Your task to perform on an android device: Open display settings Image 0: 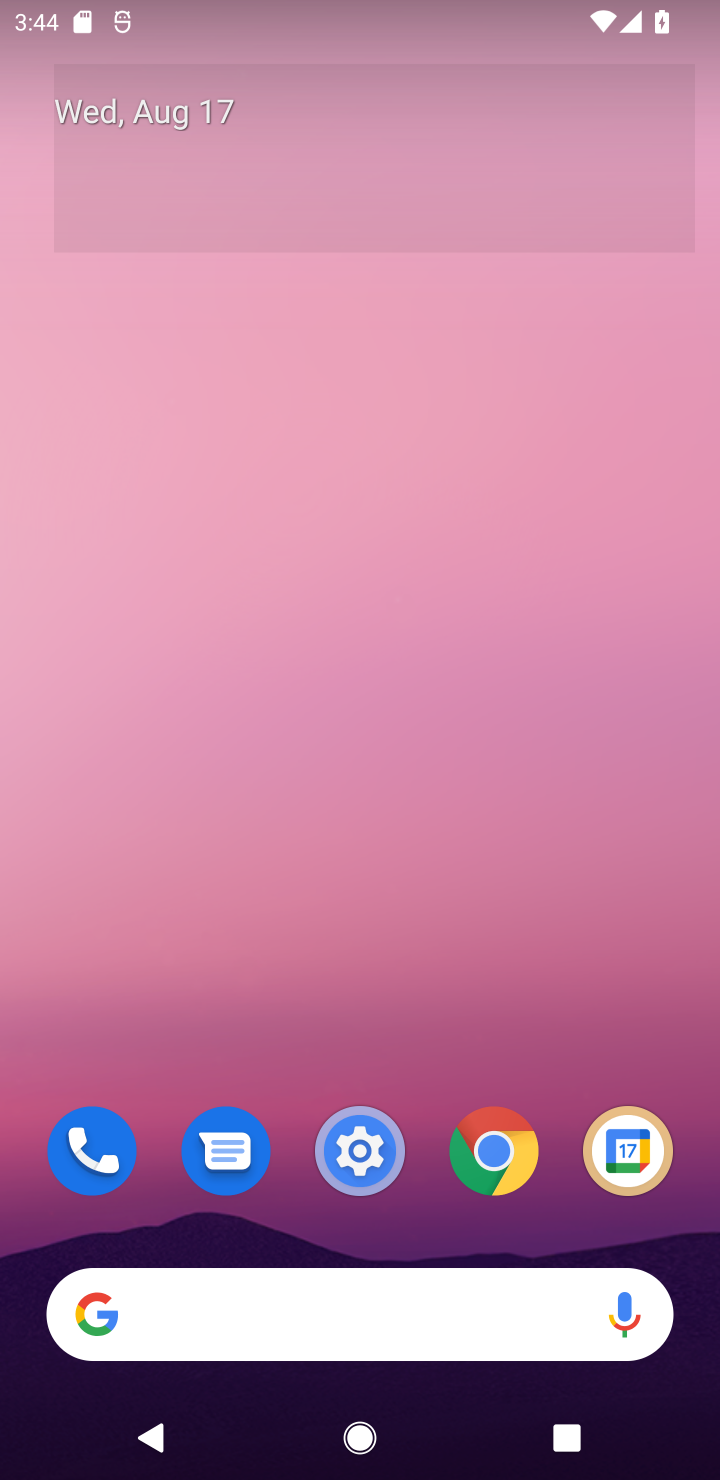
Step 0: click (354, 1188)
Your task to perform on an android device: Open display settings Image 1: 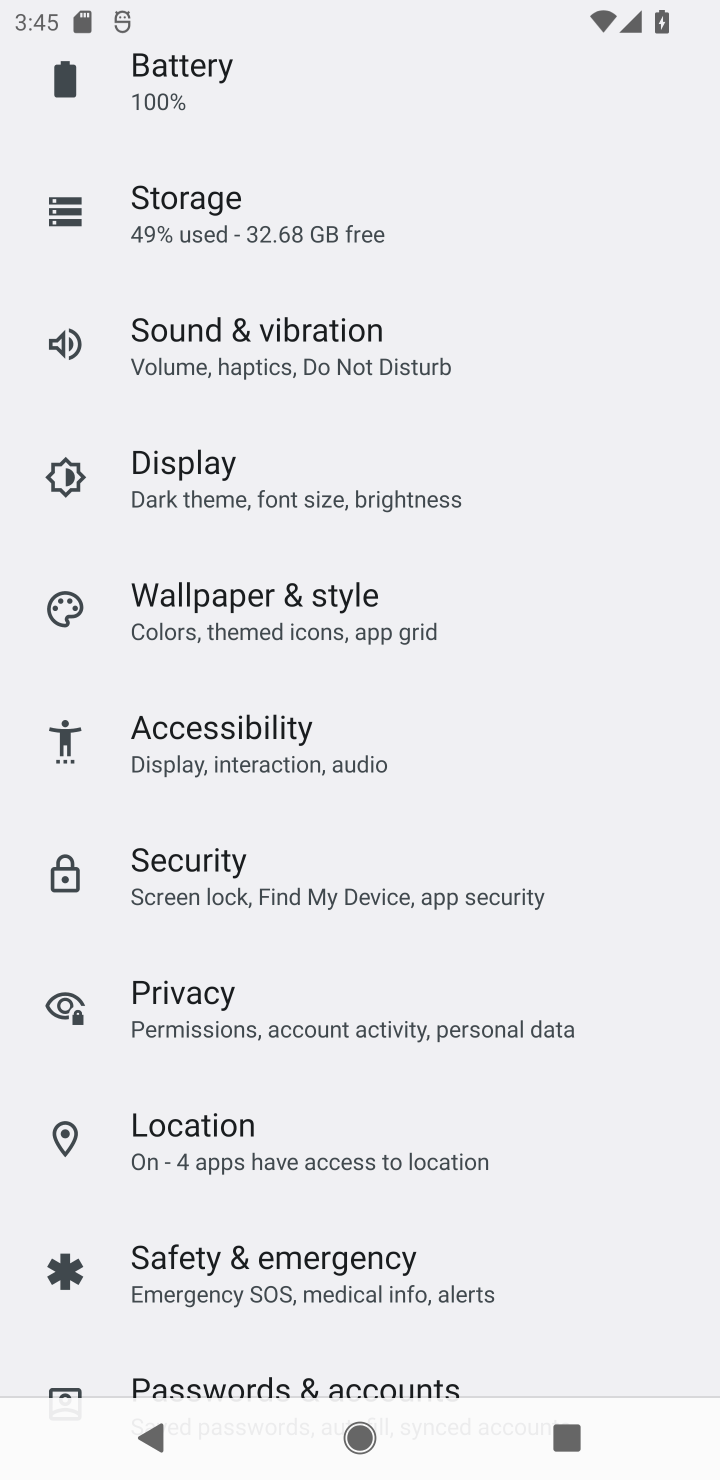
Step 1: click (245, 527)
Your task to perform on an android device: Open display settings Image 2: 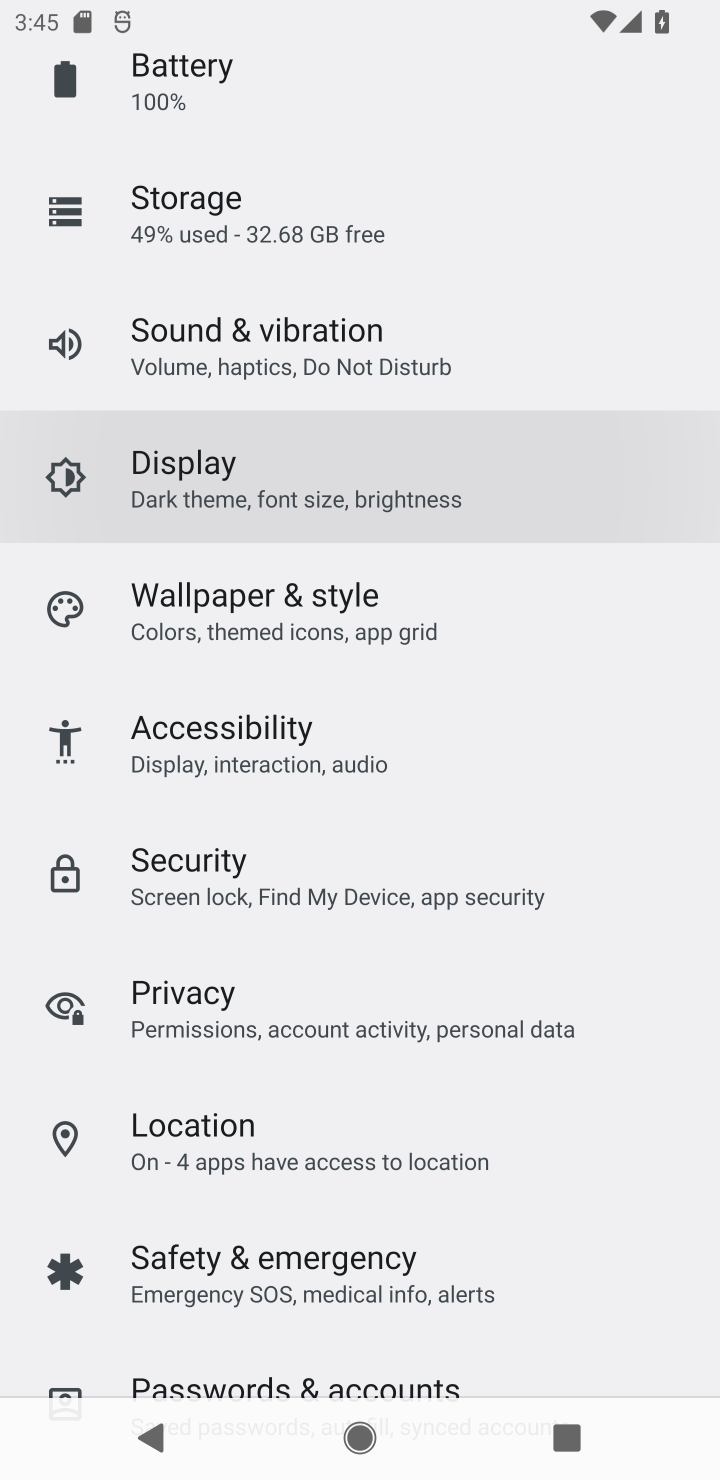
Step 2: task complete